Your task to perform on an android device: change text size in settings app Image 0: 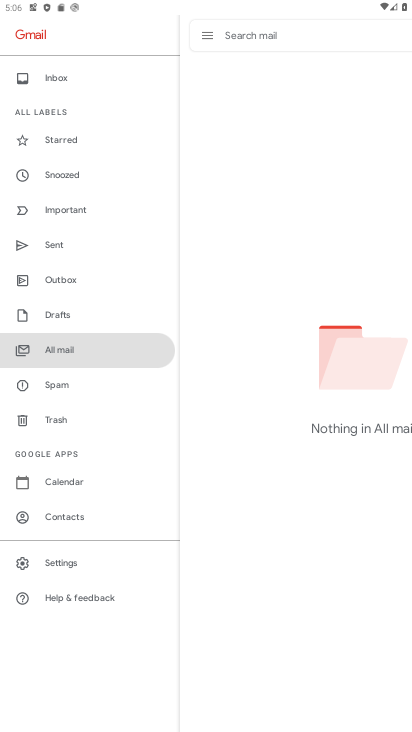
Step 0: press home button
Your task to perform on an android device: change text size in settings app Image 1: 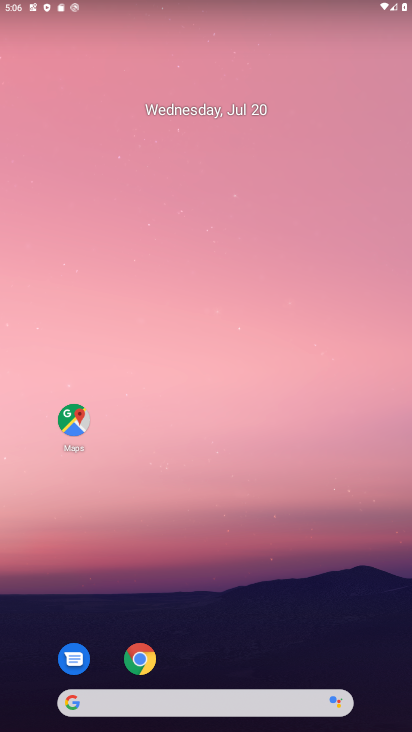
Step 1: drag from (227, 664) to (245, 359)
Your task to perform on an android device: change text size in settings app Image 2: 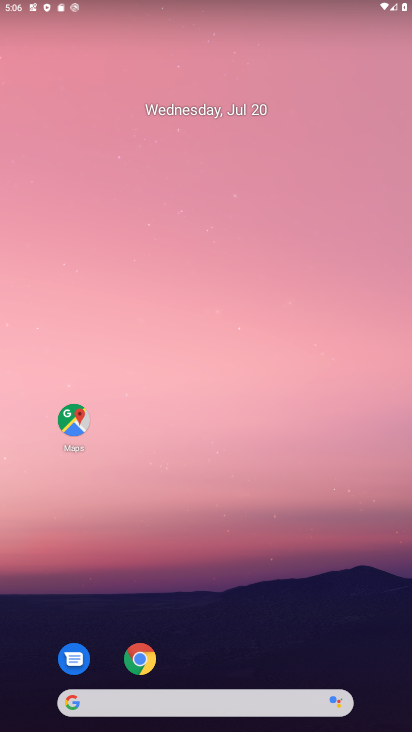
Step 2: drag from (204, 654) to (192, 284)
Your task to perform on an android device: change text size in settings app Image 3: 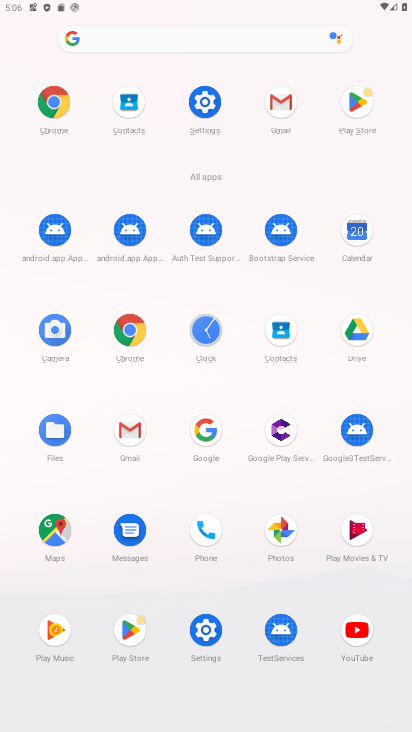
Step 3: click (208, 106)
Your task to perform on an android device: change text size in settings app Image 4: 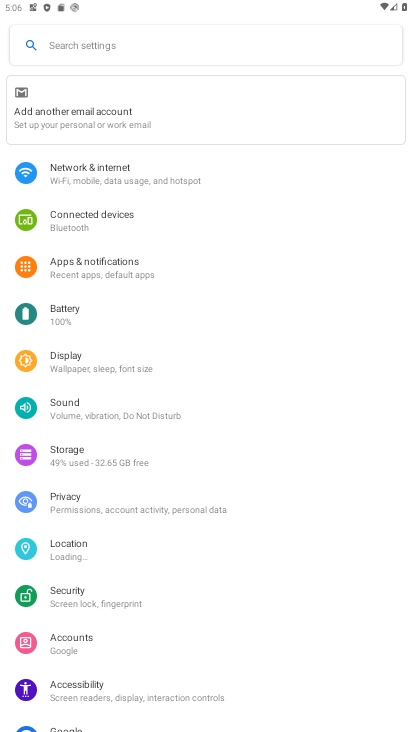
Step 4: click (77, 690)
Your task to perform on an android device: change text size in settings app Image 5: 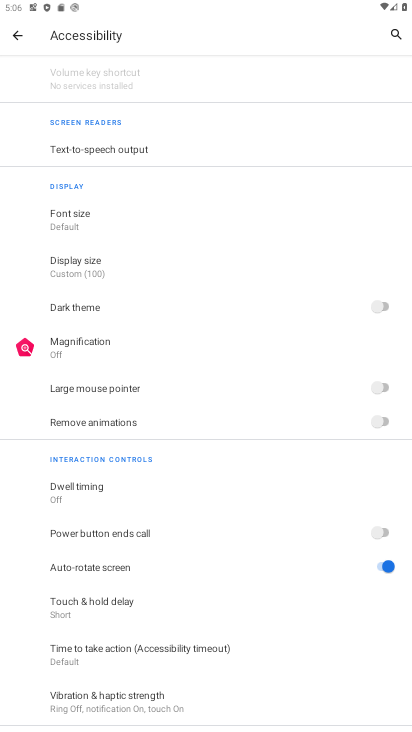
Step 5: click (68, 222)
Your task to perform on an android device: change text size in settings app Image 6: 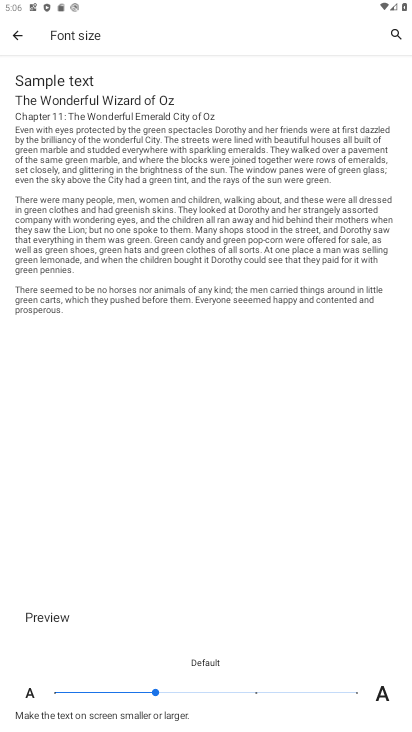
Step 6: click (238, 687)
Your task to perform on an android device: change text size in settings app Image 7: 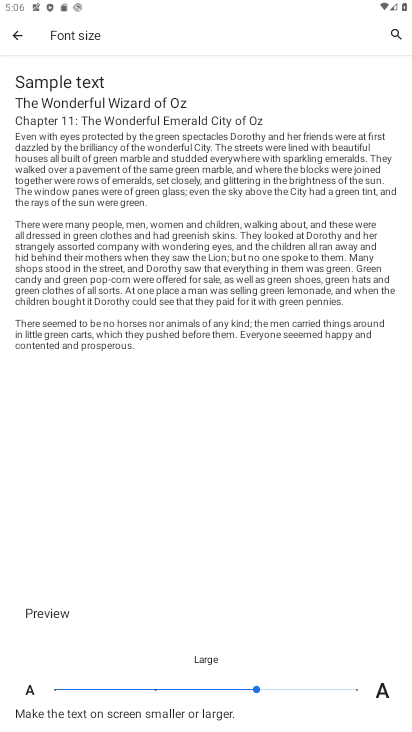
Step 7: task complete